Your task to perform on an android device: Open Maps and search for coffee Image 0: 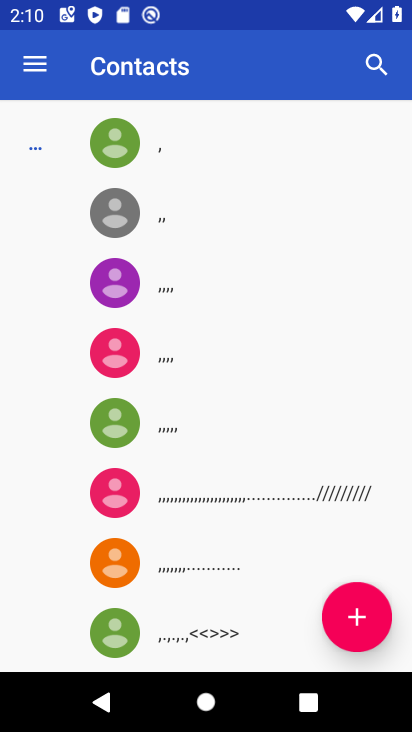
Step 0: press home button
Your task to perform on an android device: Open Maps and search for coffee Image 1: 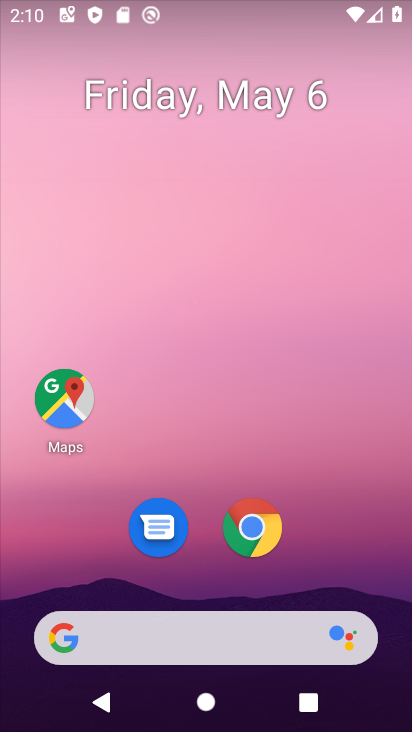
Step 1: click (64, 376)
Your task to perform on an android device: Open Maps and search for coffee Image 2: 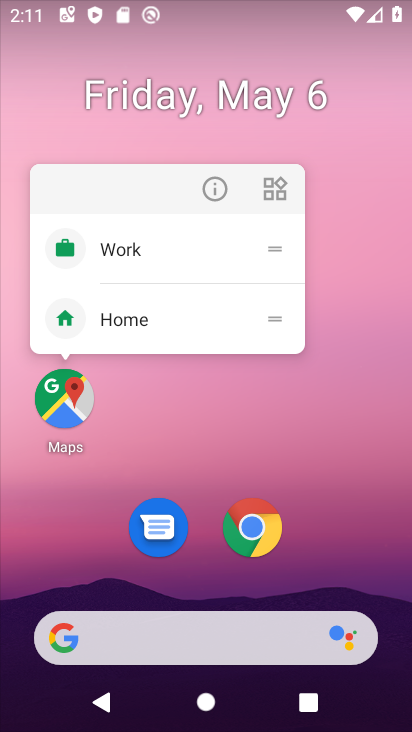
Step 2: click (61, 411)
Your task to perform on an android device: Open Maps and search for coffee Image 3: 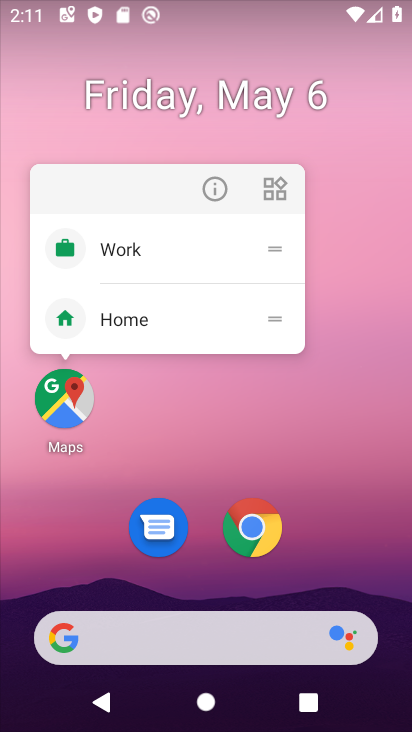
Step 3: click (61, 411)
Your task to perform on an android device: Open Maps and search for coffee Image 4: 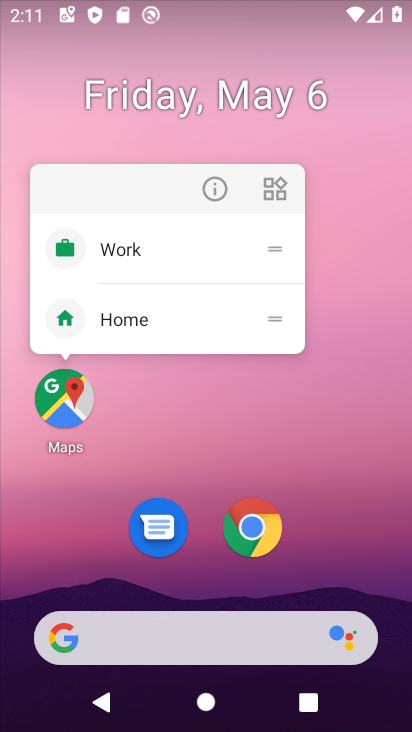
Step 4: click (61, 411)
Your task to perform on an android device: Open Maps and search for coffee Image 5: 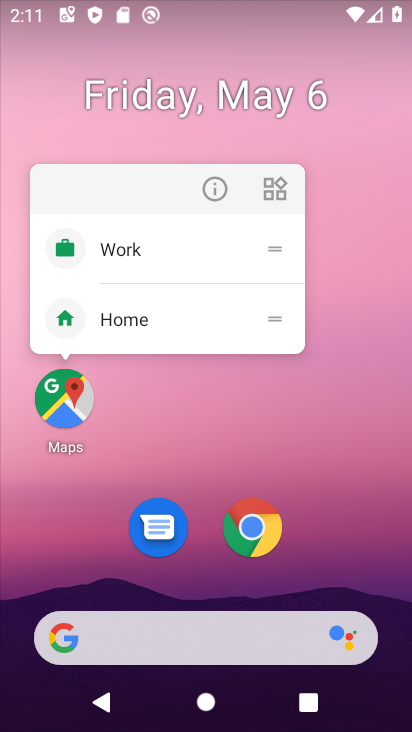
Step 5: drag from (295, 434) to (355, 90)
Your task to perform on an android device: Open Maps and search for coffee Image 6: 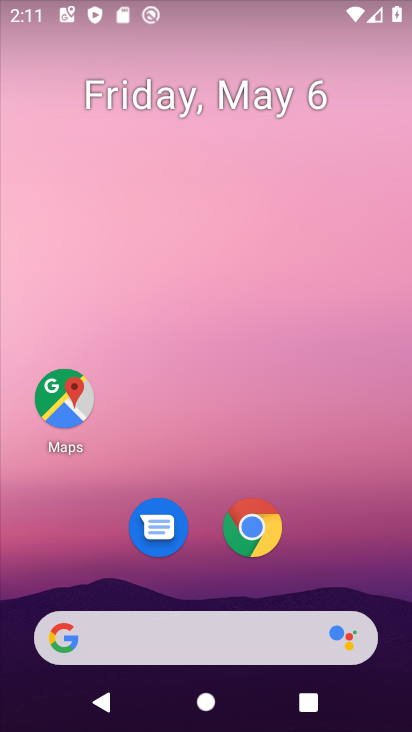
Step 6: drag from (288, 321) to (339, 78)
Your task to perform on an android device: Open Maps and search for coffee Image 7: 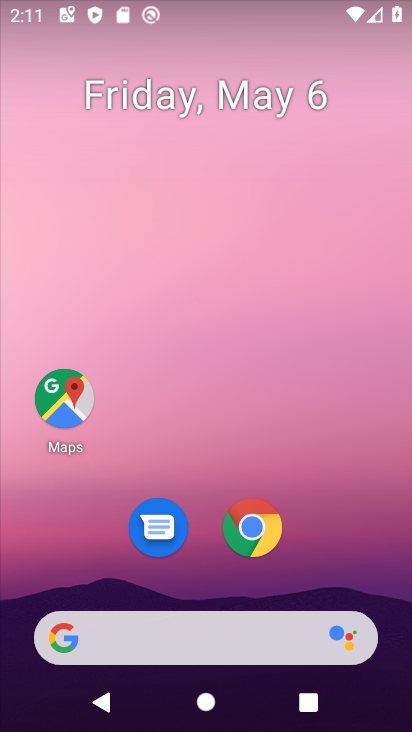
Step 7: drag from (343, 519) to (372, 71)
Your task to perform on an android device: Open Maps and search for coffee Image 8: 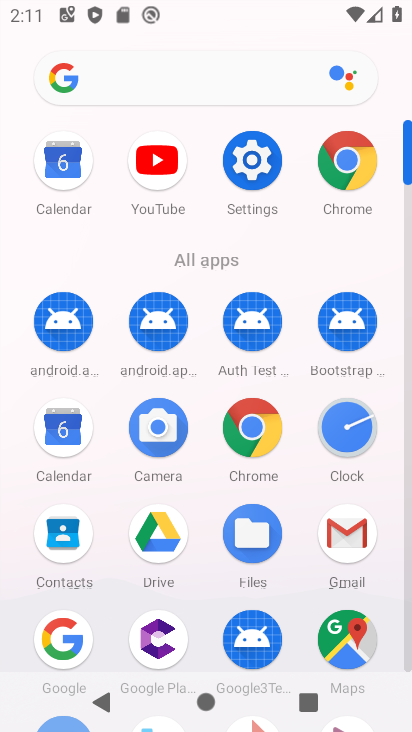
Step 8: click (353, 625)
Your task to perform on an android device: Open Maps and search for coffee Image 9: 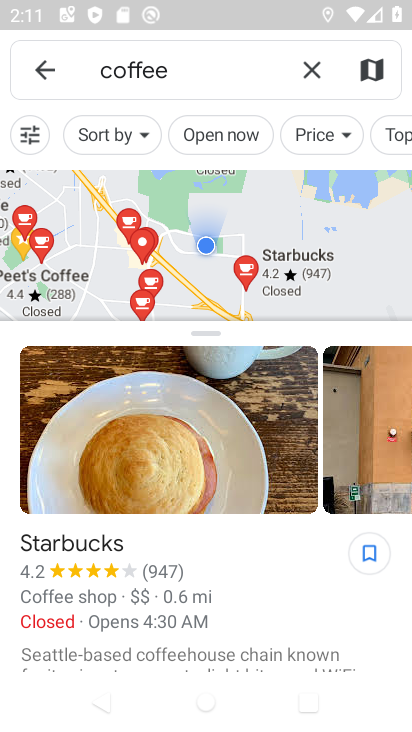
Step 9: task complete